Your task to perform on an android device: add a contact in the contacts app Image 0: 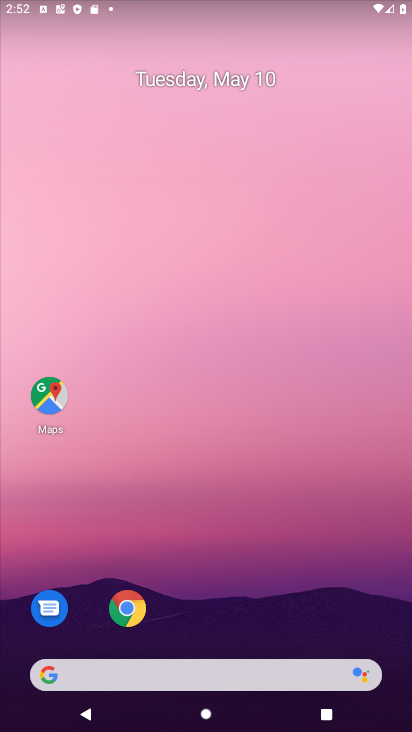
Step 0: drag from (352, 622) to (271, 125)
Your task to perform on an android device: add a contact in the contacts app Image 1: 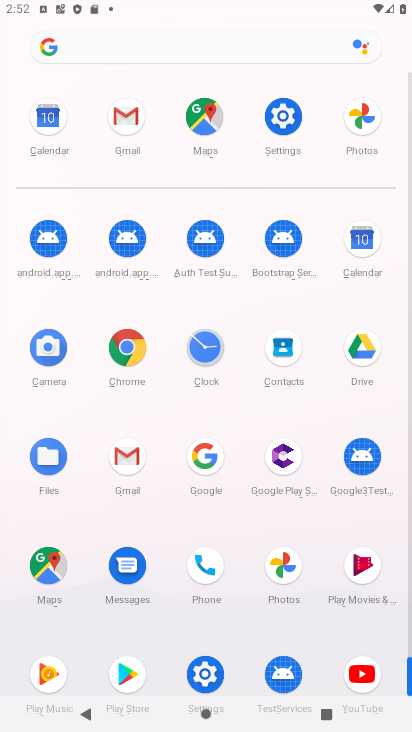
Step 1: click (280, 346)
Your task to perform on an android device: add a contact in the contacts app Image 2: 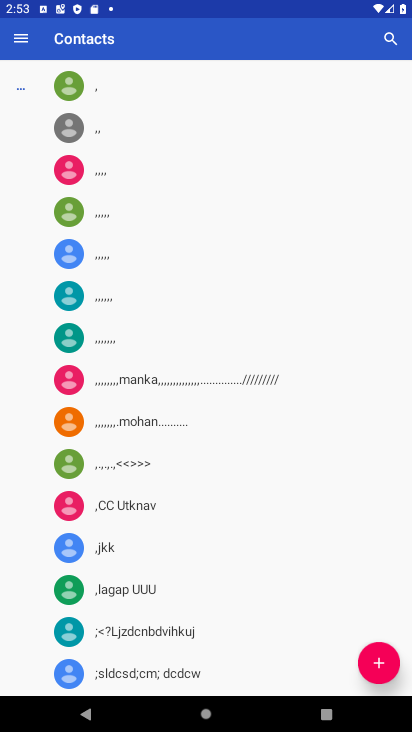
Step 2: click (380, 660)
Your task to perform on an android device: add a contact in the contacts app Image 3: 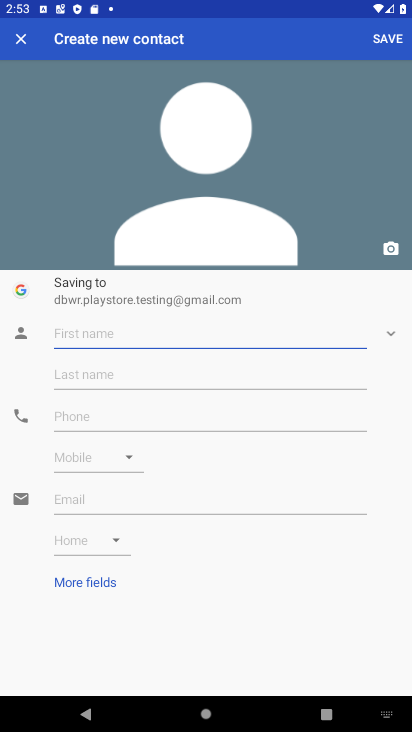
Step 3: type "ktjgjfh"
Your task to perform on an android device: add a contact in the contacts app Image 4: 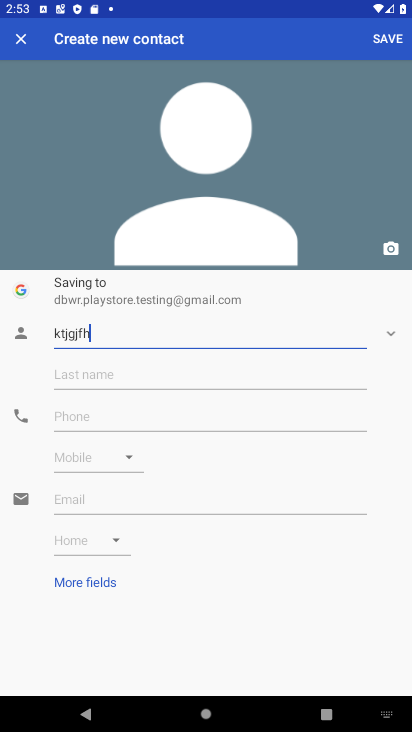
Step 4: click (69, 419)
Your task to perform on an android device: add a contact in the contacts app Image 5: 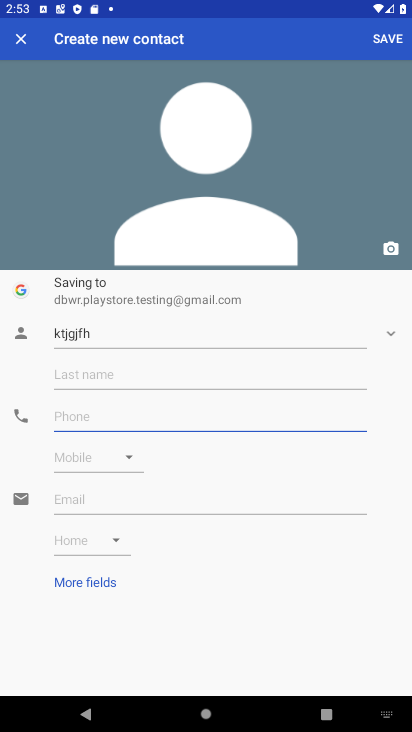
Step 5: type "8677466"
Your task to perform on an android device: add a contact in the contacts app Image 6: 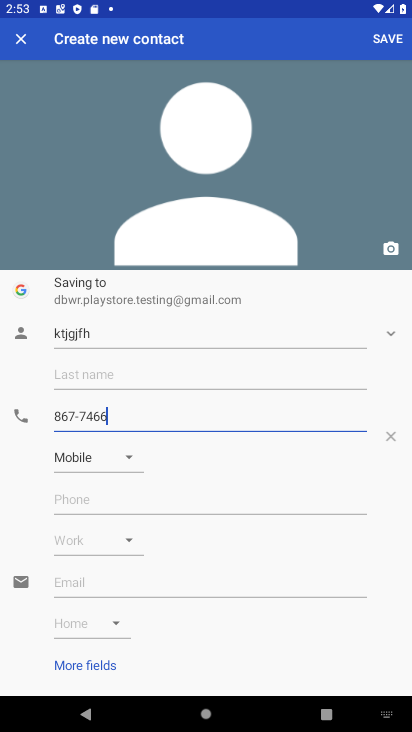
Step 6: click (126, 459)
Your task to perform on an android device: add a contact in the contacts app Image 7: 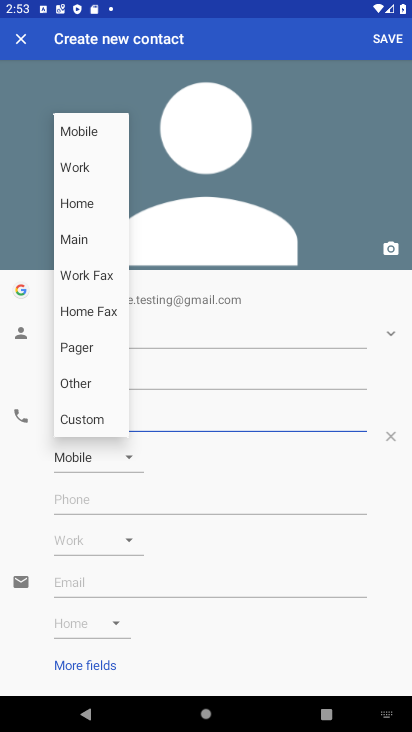
Step 7: click (77, 170)
Your task to perform on an android device: add a contact in the contacts app Image 8: 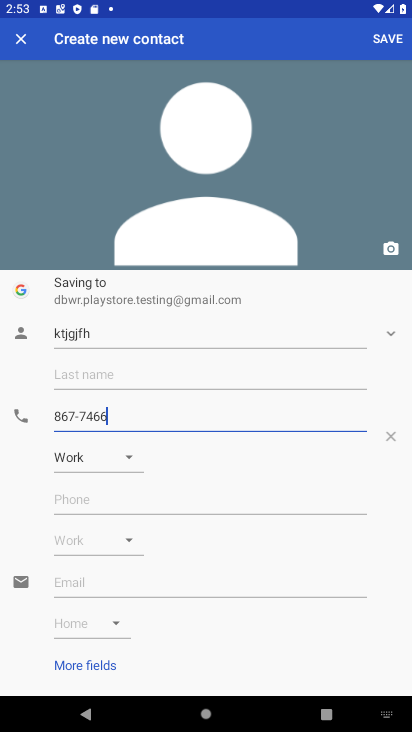
Step 8: click (379, 34)
Your task to perform on an android device: add a contact in the contacts app Image 9: 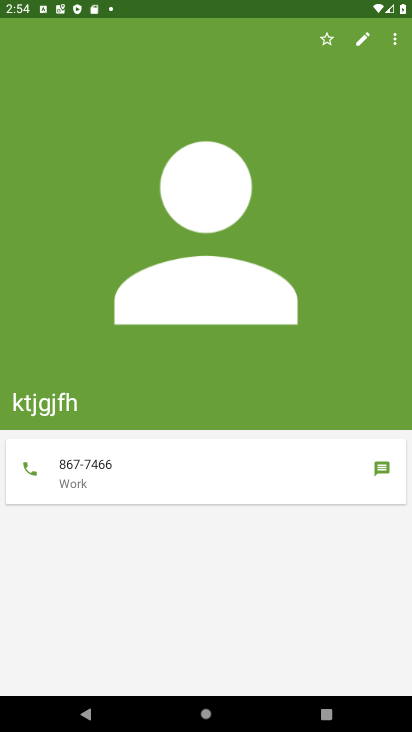
Step 9: task complete